Your task to perform on an android device: Show me productivity apps on the Play Store Image 0: 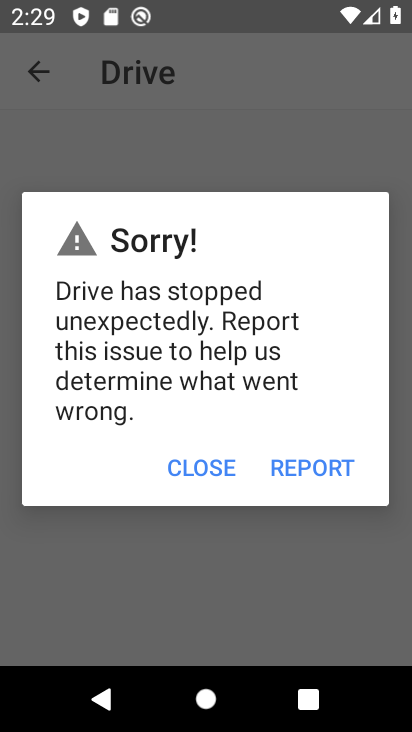
Step 0: press home button
Your task to perform on an android device: Show me productivity apps on the Play Store Image 1: 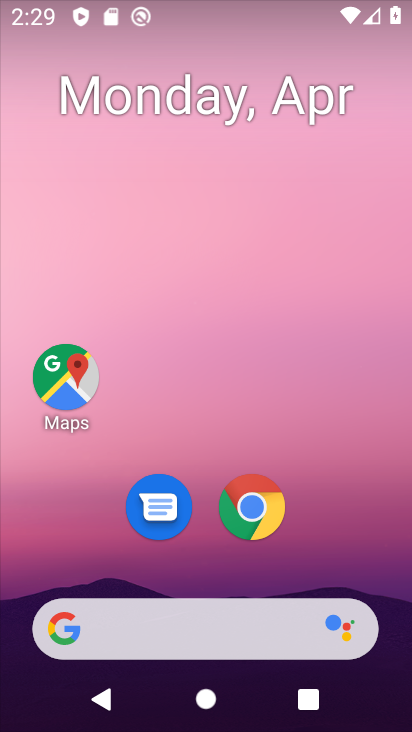
Step 1: drag from (382, 611) to (353, 95)
Your task to perform on an android device: Show me productivity apps on the Play Store Image 2: 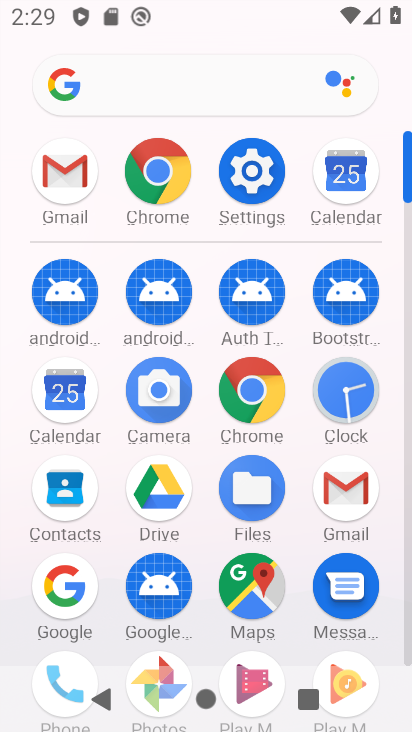
Step 2: click (405, 642)
Your task to perform on an android device: Show me productivity apps on the Play Store Image 3: 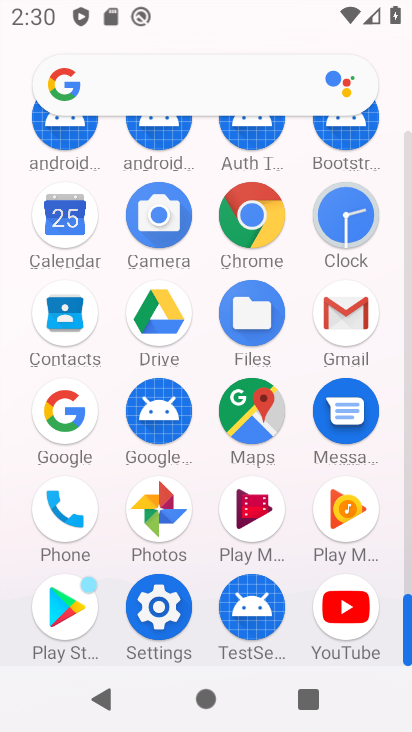
Step 3: click (68, 611)
Your task to perform on an android device: Show me productivity apps on the Play Store Image 4: 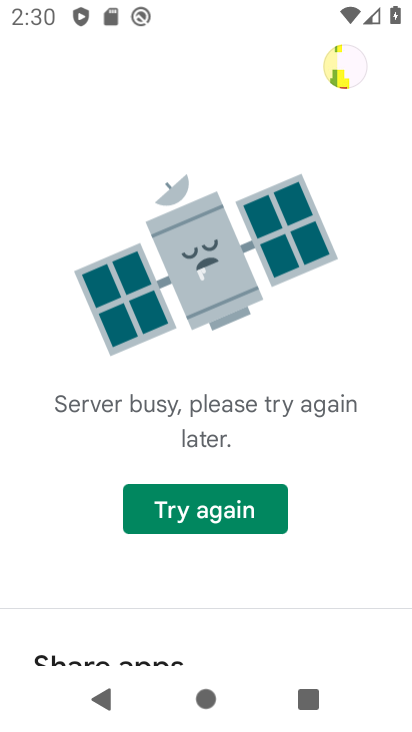
Step 4: click (173, 503)
Your task to perform on an android device: Show me productivity apps on the Play Store Image 5: 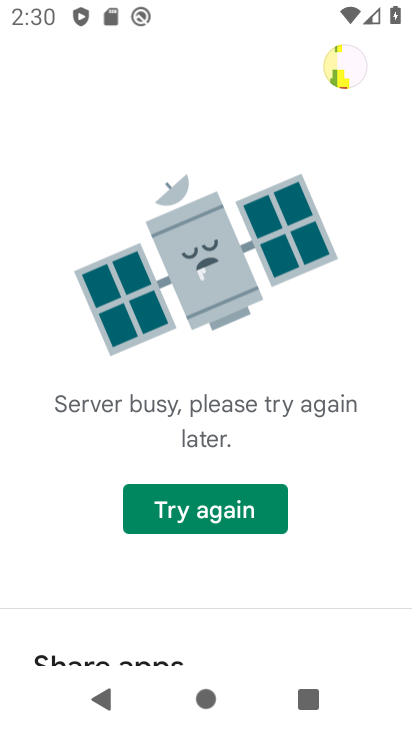
Step 5: task complete